Your task to perform on an android device: move an email to a new category in the gmail app Image 0: 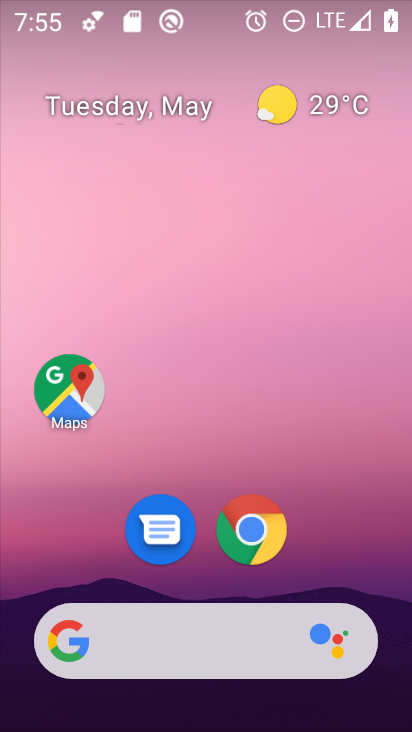
Step 0: drag from (398, 631) to (266, 30)
Your task to perform on an android device: move an email to a new category in the gmail app Image 1: 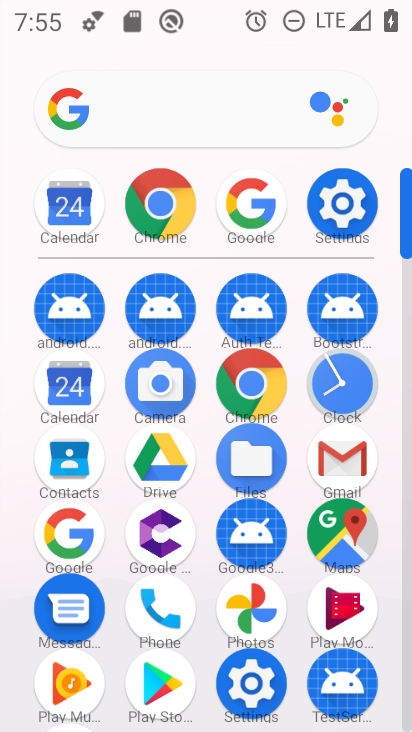
Step 1: click (348, 446)
Your task to perform on an android device: move an email to a new category in the gmail app Image 2: 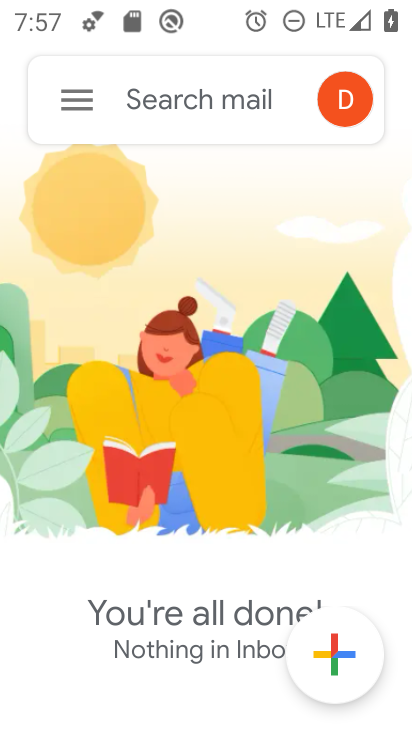
Step 2: task complete